Your task to perform on an android device: Show me popular videos on Youtube Image 0: 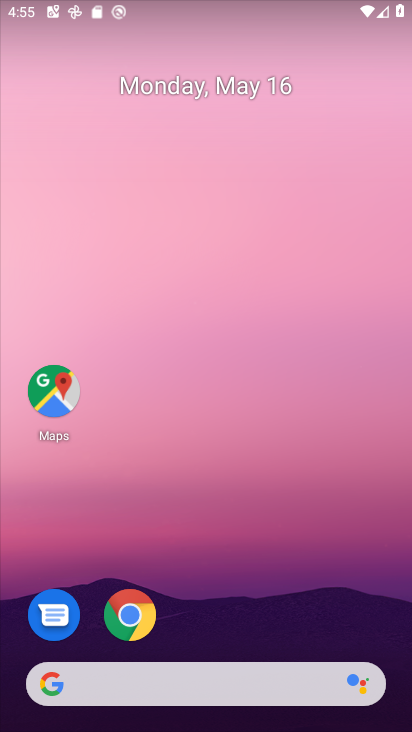
Step 0: drag from (210, 624) to (218, 121)
Your task to perform on an android device: Show me popular videos on Youtube Image 1: 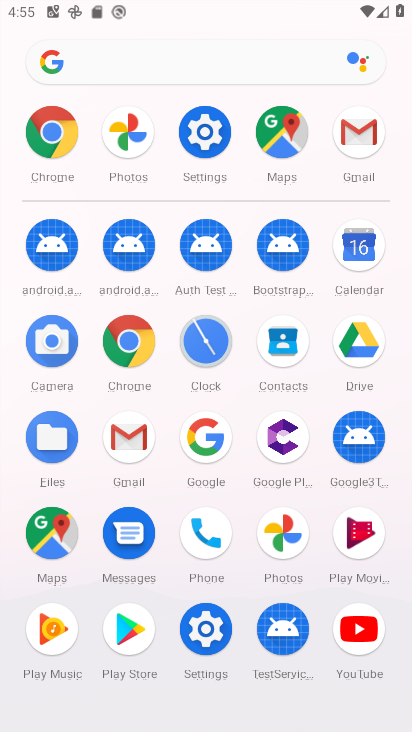
Step 1: click (355, 637)
Your task to perform on an android device: Show me popular videos on Youtube Image 2: 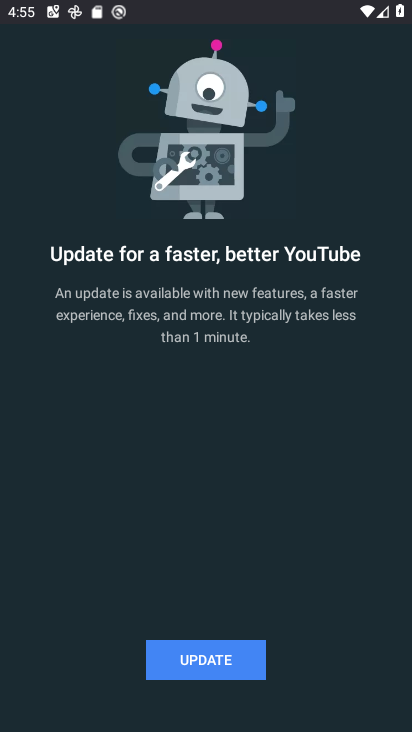
Step 2: click (211, 676)
Your task to perform on an android device: Show me popular videos on Youtube Image 3: 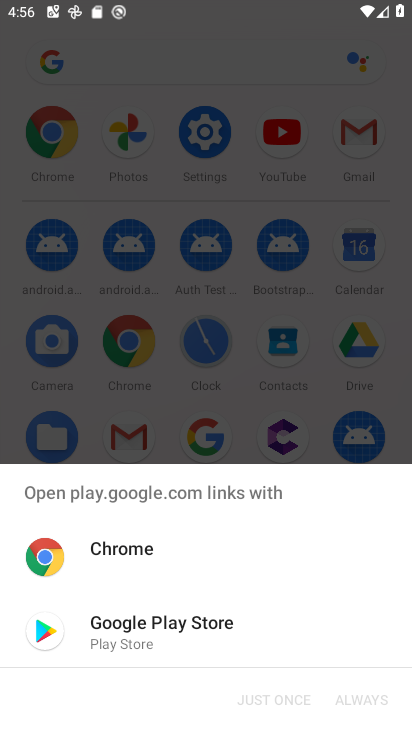
Step 3: click (132, 640)
Your task to perform on an android device: Show me popular videos on Youtube Image 4: 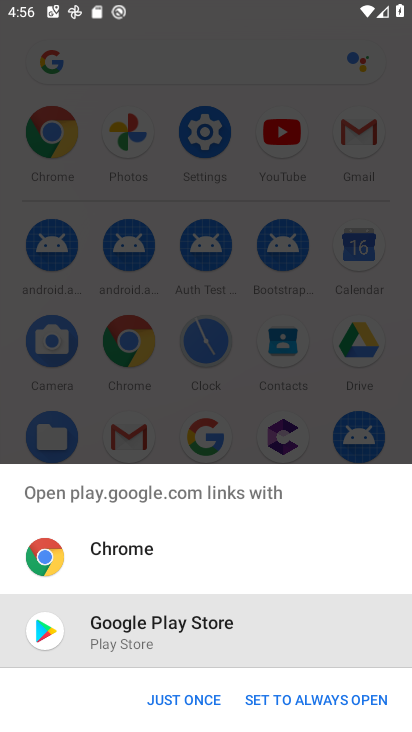
Step 4: click (344, 704)
Your task to perform on an android device: Show me popular videos on Youtube Image 5: 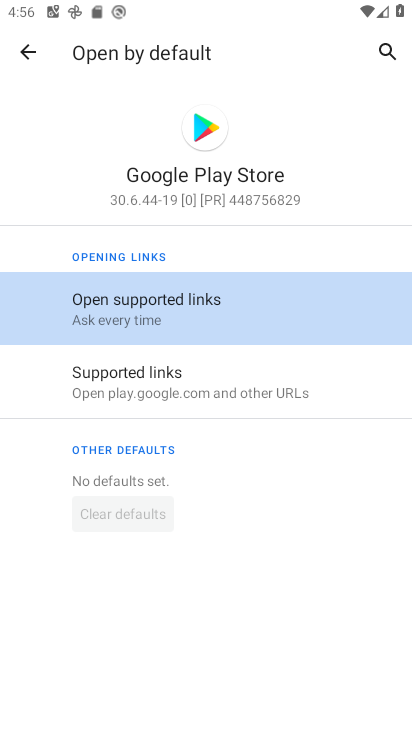
Step 5: click (147, 319)
Your task to perform on an android device: Show me popular videos on Youtube Image 6: 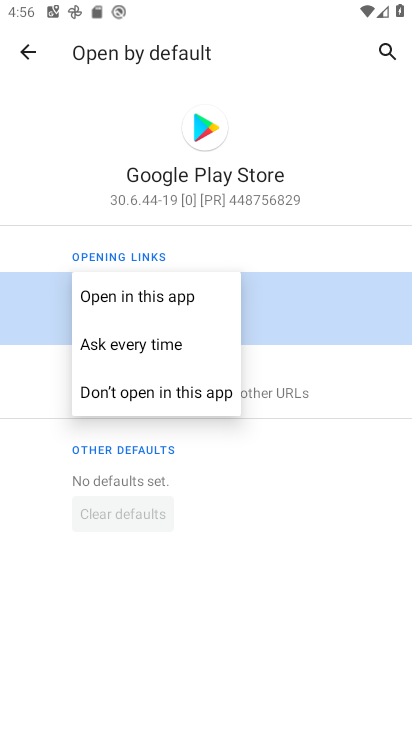
Step 6: click (155, 307)
Your task to perform on an android device: Show me popular videos on Youtube Image 7: 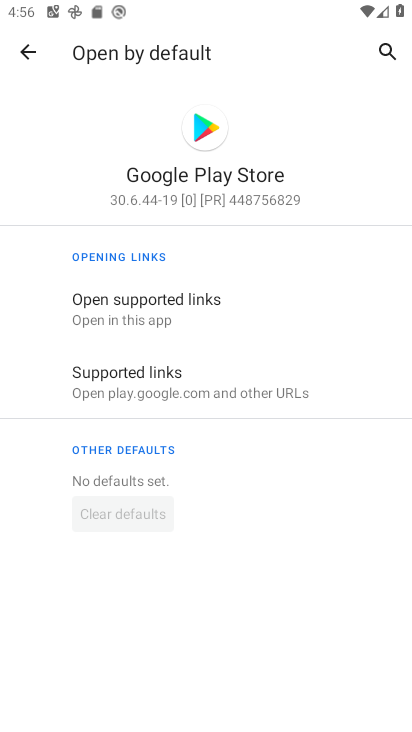
Step 7: click (29, 54)
Your task to perform on an android device: Show me popular videos on Youtube Image 8: 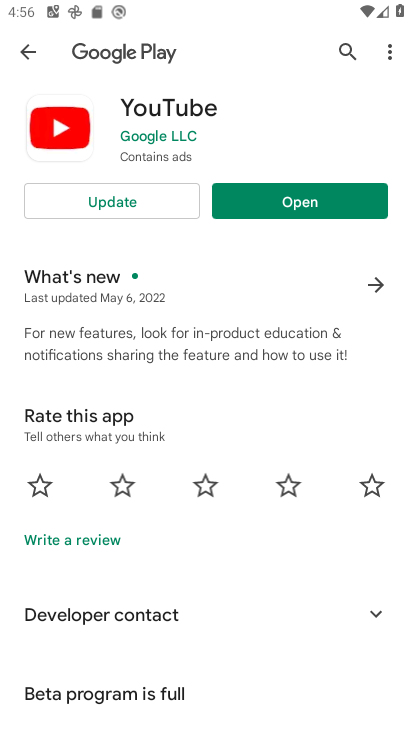
Step 8: click (158, 200)
Your task to perform on an android device: Show me popular videos on Youtube Image 9: 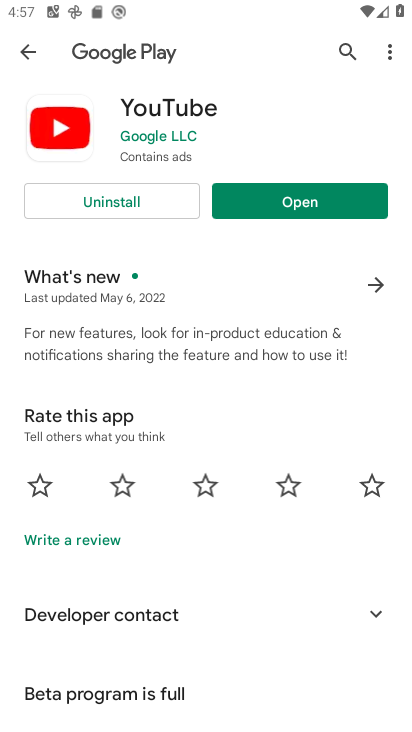
Step 9: click (305, 192)
Your task to perform on an android device: Show me popular videos on Youtube Image 10: 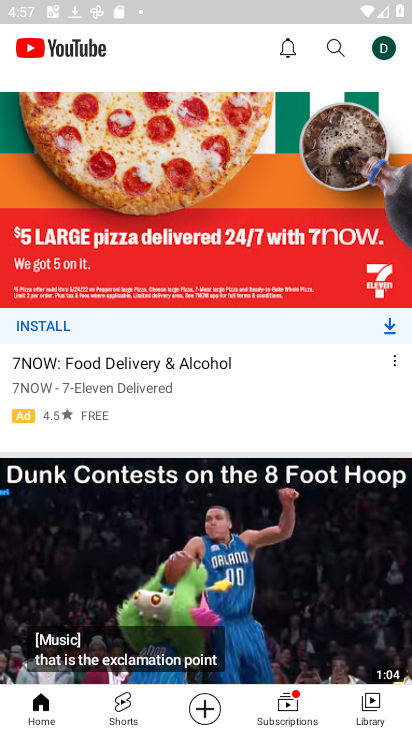
Step 10: click (320, 94)
Your task to perform on an android device: Show me popular videos on Youtube Image 11: 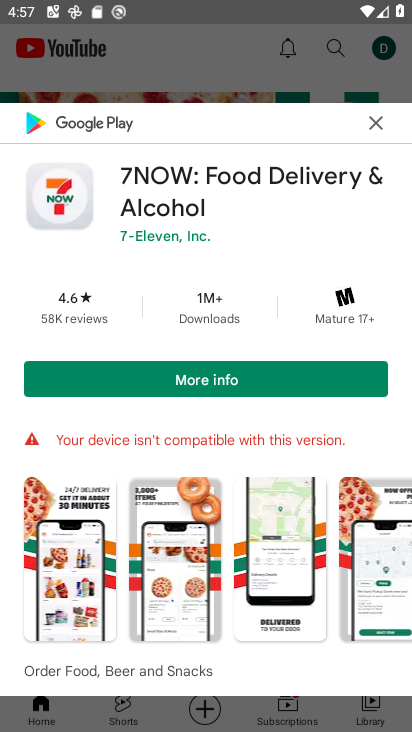
Step 11: task complete